Your task to perform on an android device: Open notification settings Image 0: 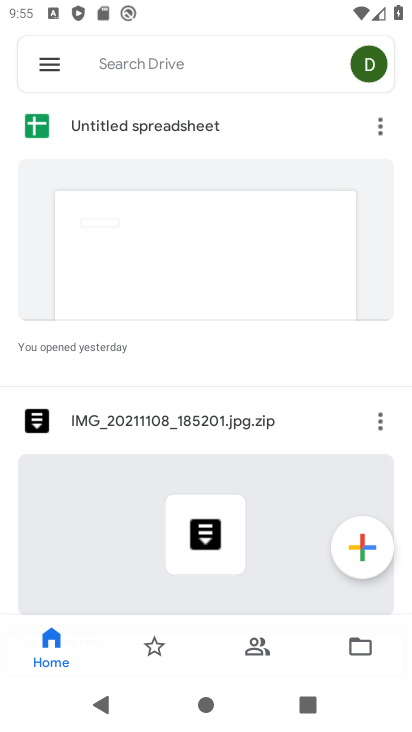
Step 0: press home button
Your task to perform on an android device: Open notification settings Image 1: 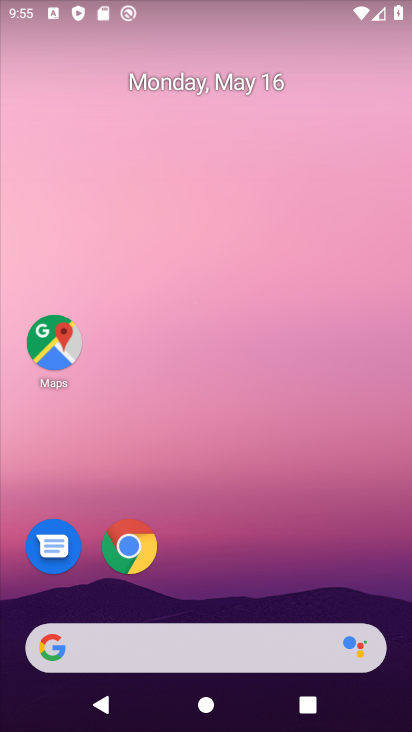
Step 1: drag from (215, 617) to (152, 103)
Your task to perform on an android device: Open notification settings Image 2: 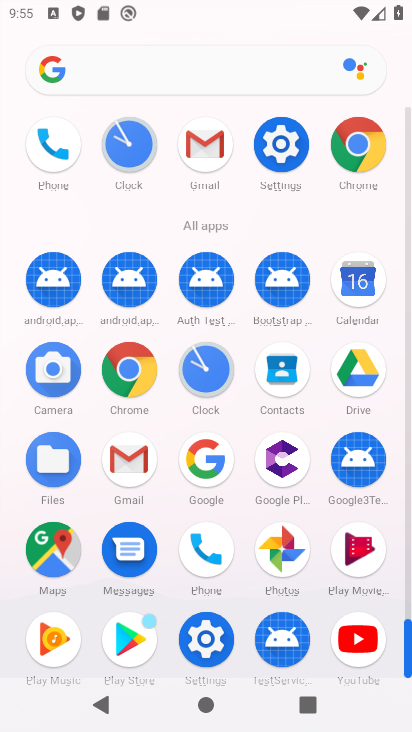
Step 2: click (285, 142)
Your task to perform on an android device: Open notification settings Image 3: 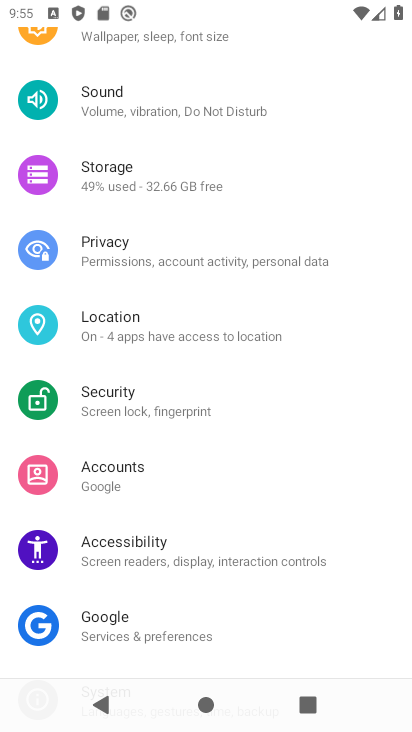
Step 3: drag from (211, 190) to (125, 581)
Your task to perform on an android device: Open notification settings Image 4: 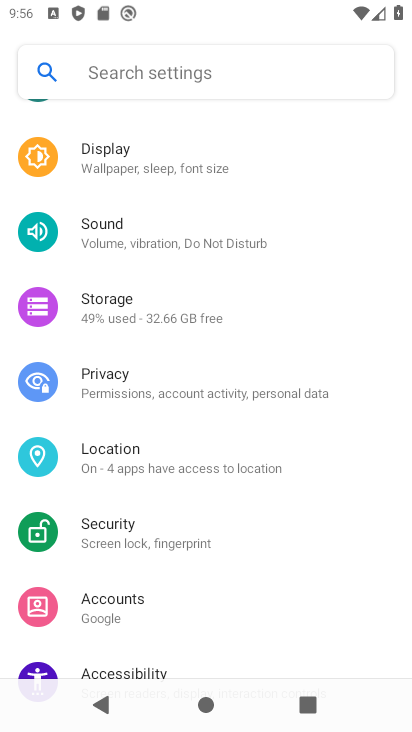
Step 4: drag from (154, 234) to (167, 575)
Your task to perform on an android device: Open notification settings Image 5: 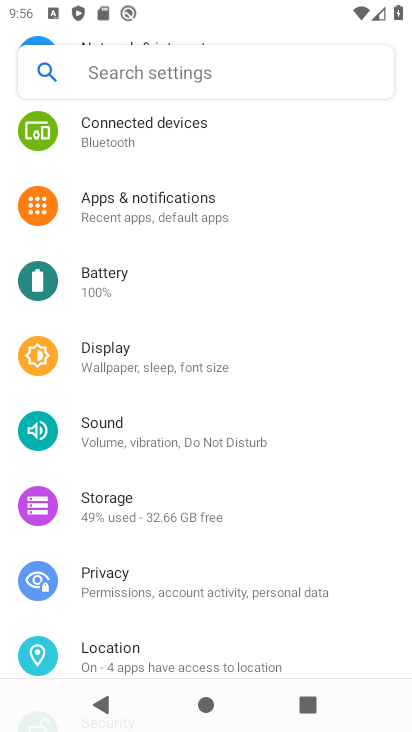
Step 5: click (191, 239)
Your task to perform on an android device: Open notification settings Image 6: 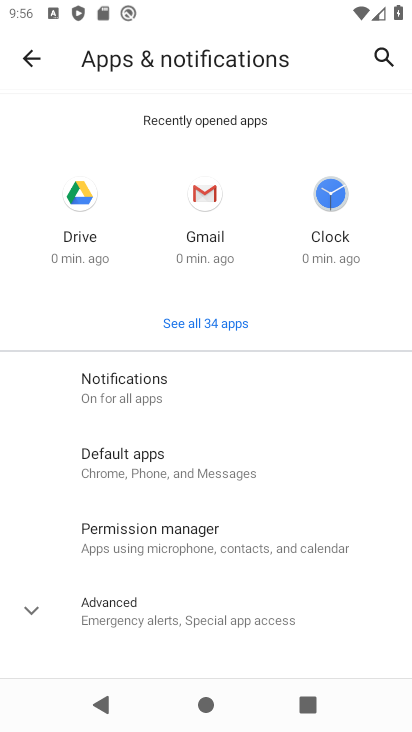
Step 6: task complete